Your task to perform on an android device: snooze an email in the gmail app Image 0: 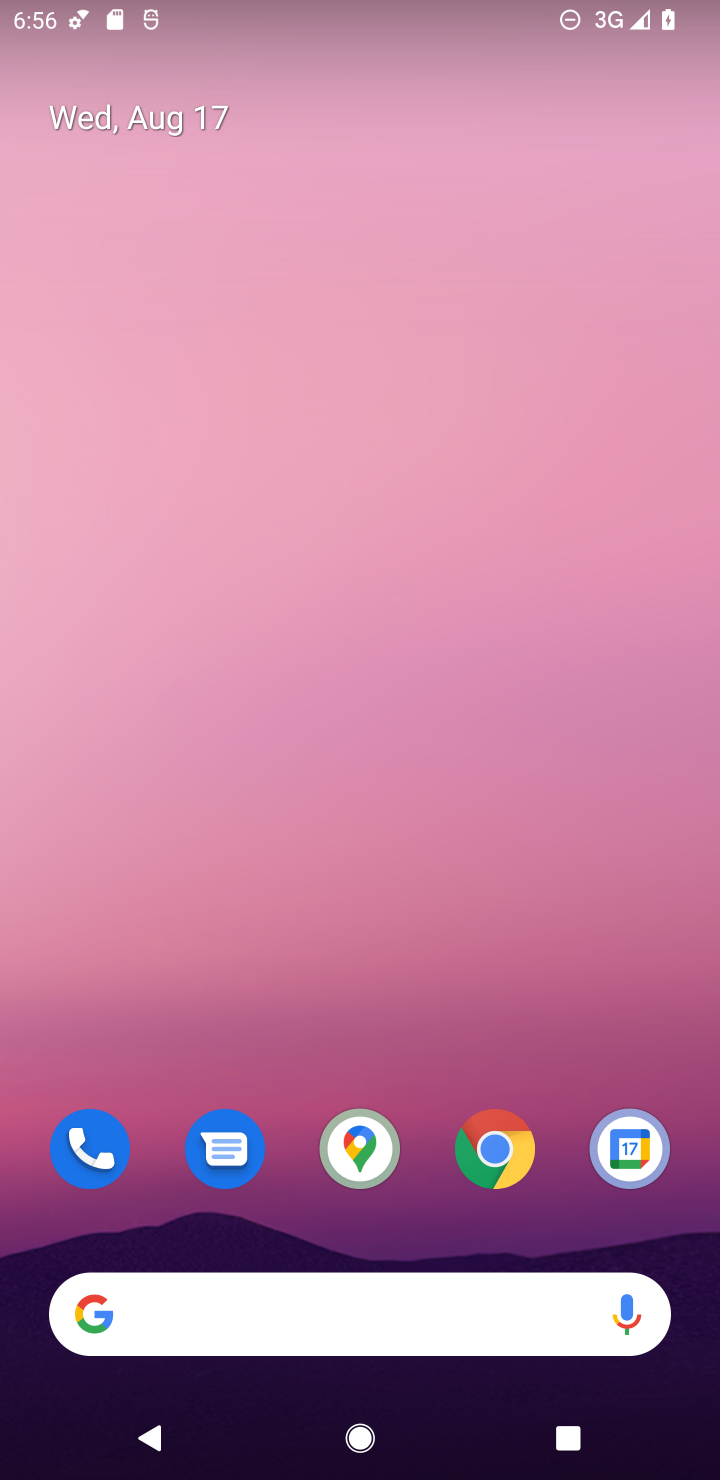
Step 0: drag from (425, 1226) to (316, 357)
Your task to perform on an android device: snooze an email in the gmail app Image 1: 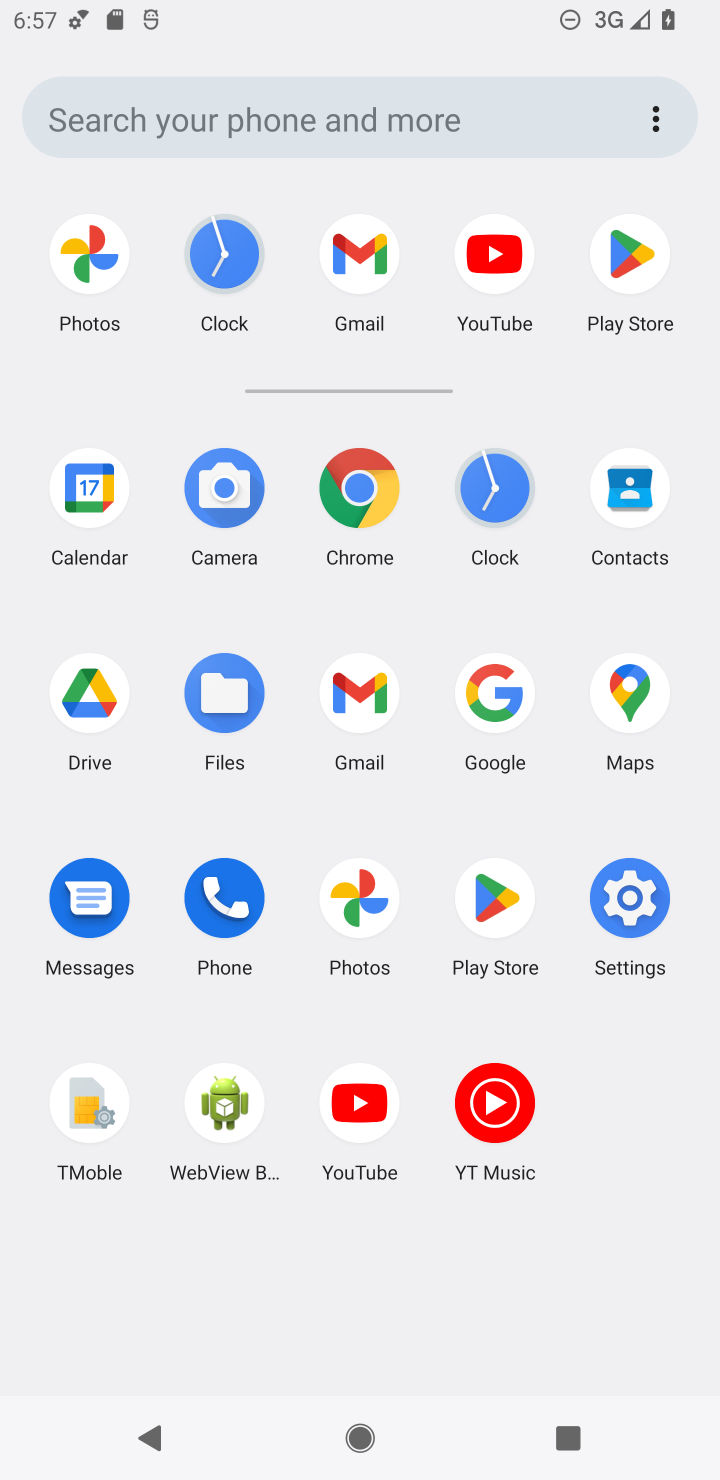
Step 1: click (357, 252)
Your task to perform on an android device: snooze an email in the gmail app Image 2: 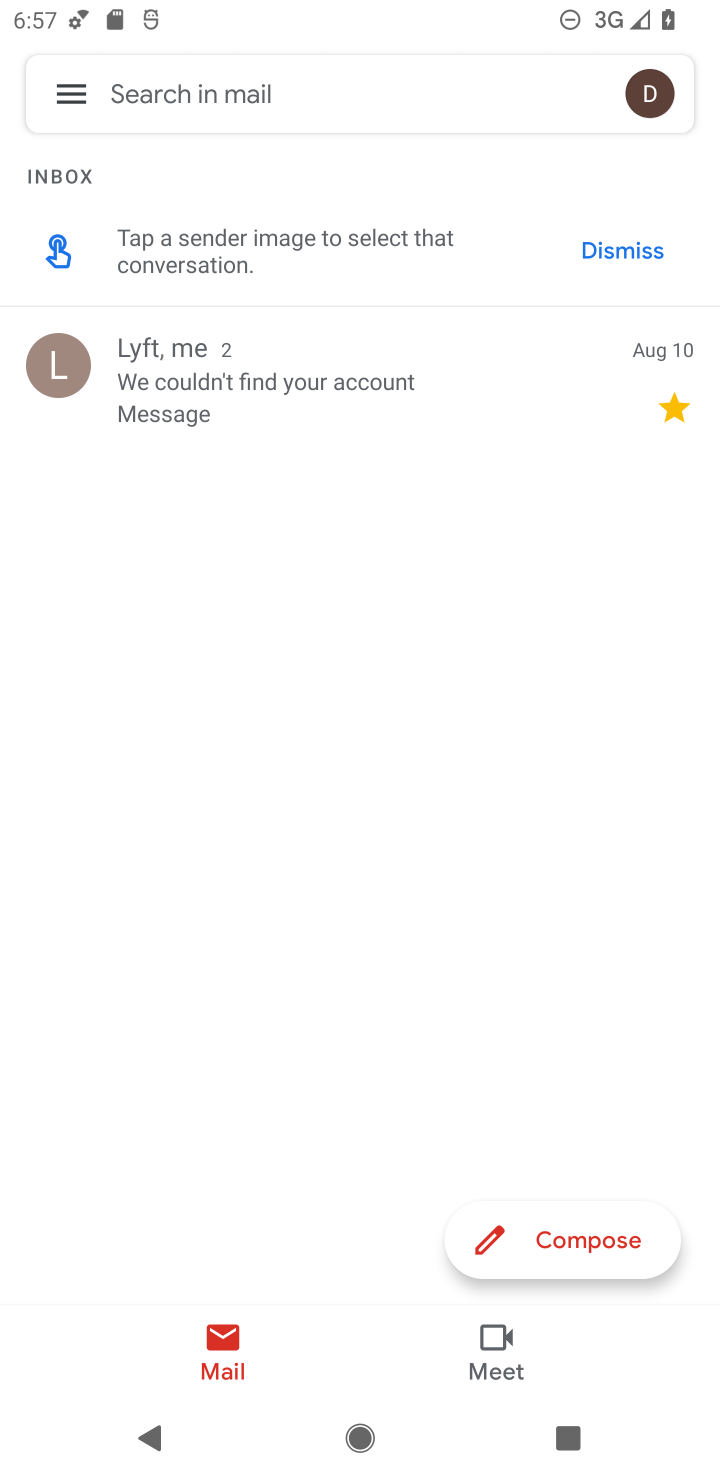
Step 2: click (197, 367)
Your task to perform on an android device: snooze an email in the gmail app Image 3: 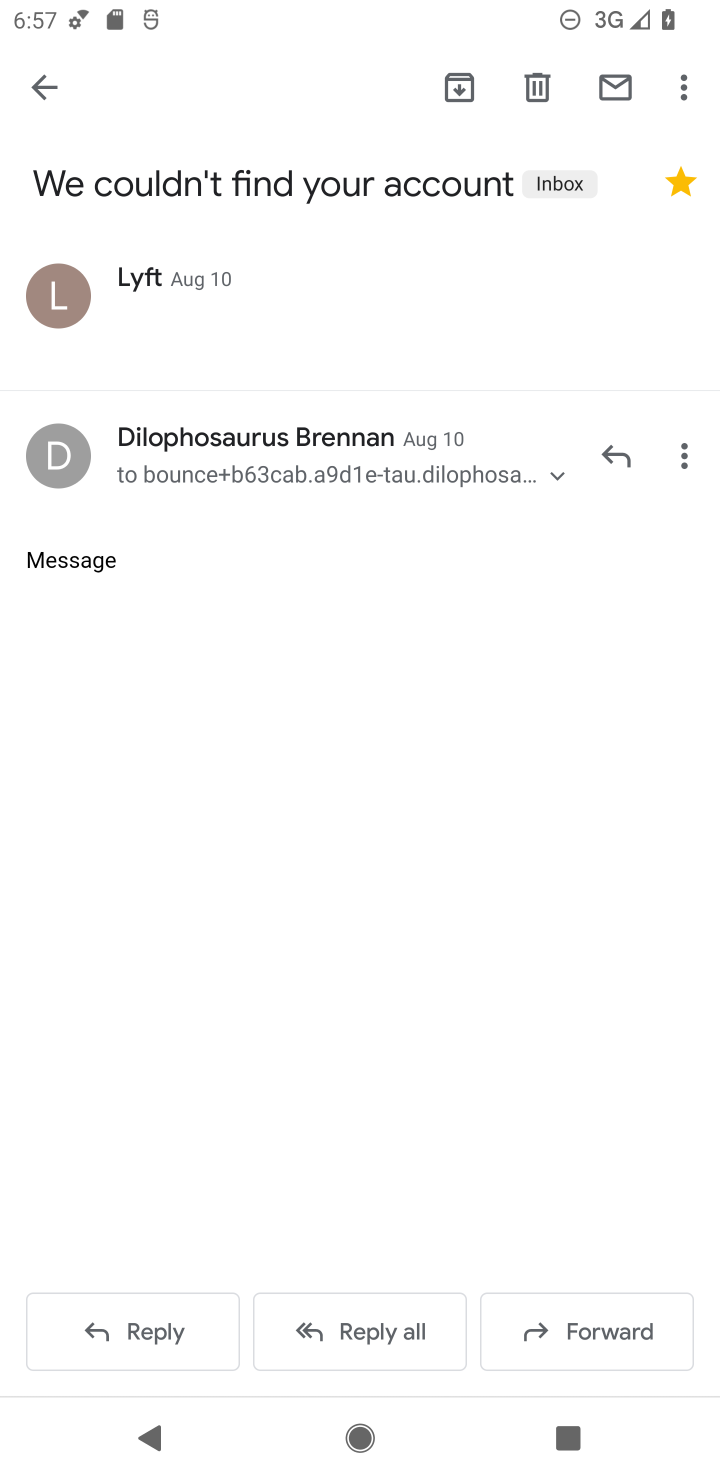
Step 3: click (686, 93)
Your task to perform on an android device: snooze an email in the gmail app Image 4: 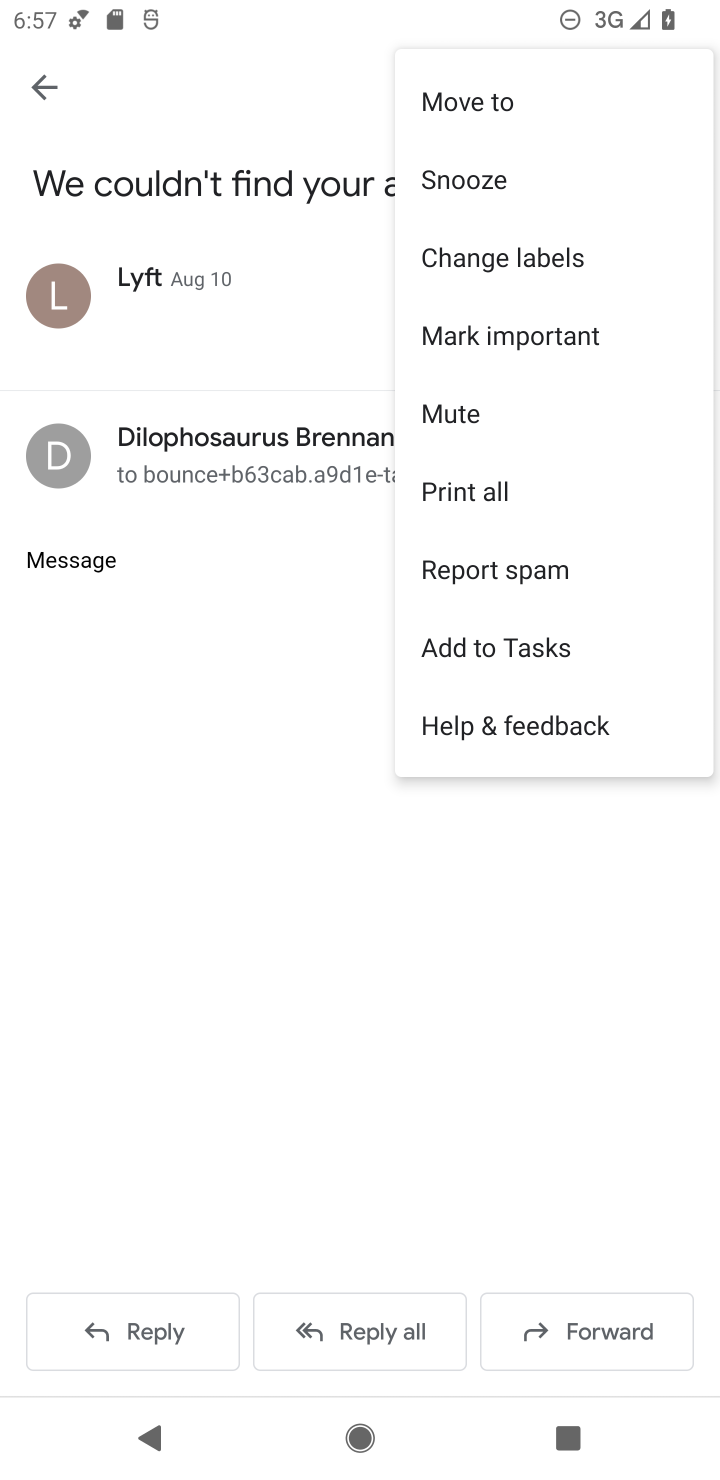
Step 4: click (485, 171)
Your task to perform on an android device: snooze an email in the gmail app Image 5: 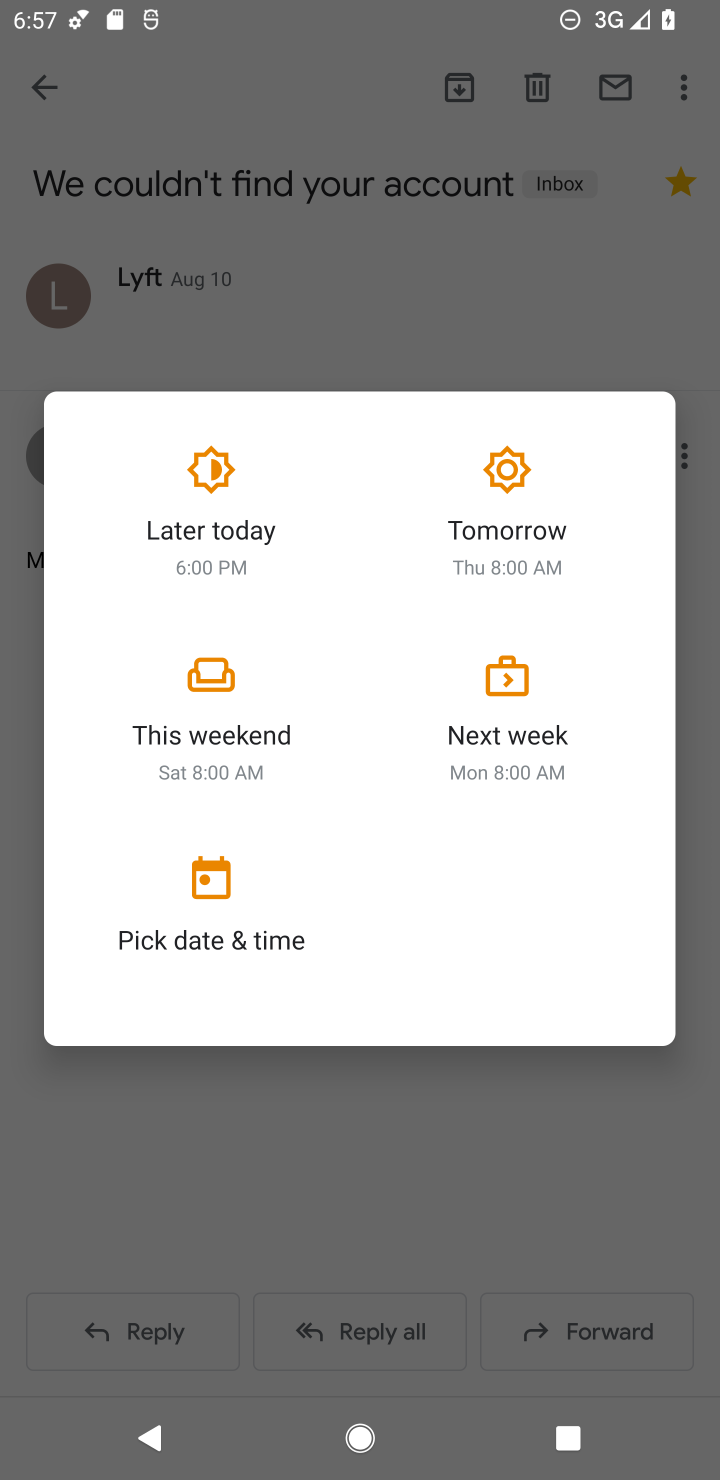
Step 5: click (211, 468)
Your task to perform on an android device: snooze an email in the gmail app Image 6: 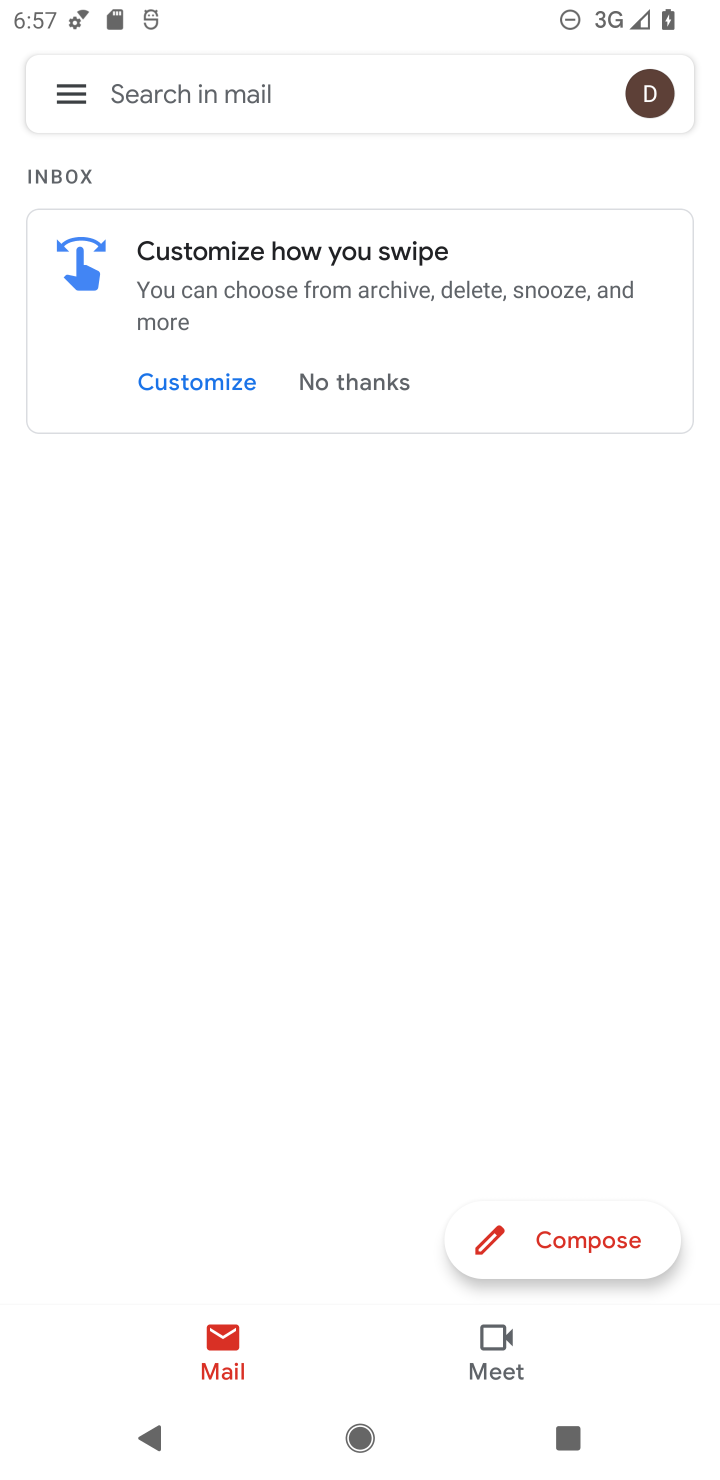
Step 6: task complete